Your task to perform on an android device: Go to Google Image 0: 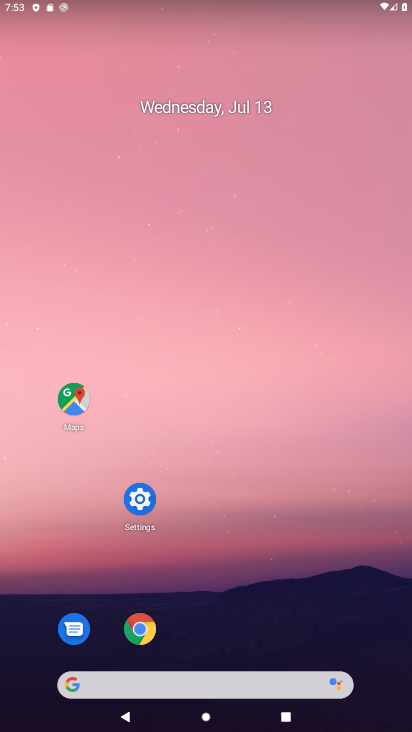
Step 0: click (74, 396)
Your task to perform on an android device: Go to Google Image 1: 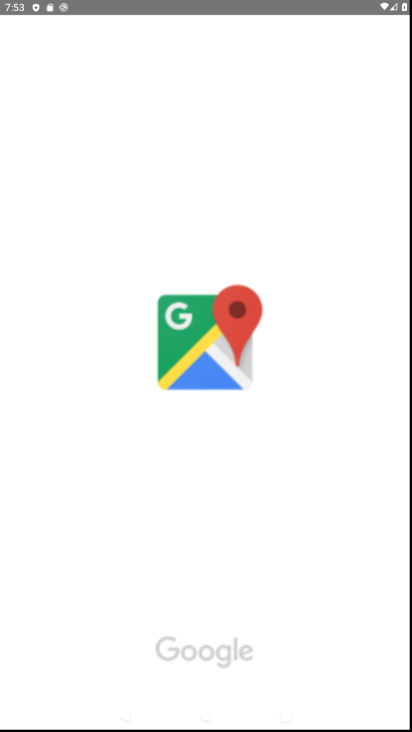
Step 1: task complete